Your task to perform on an android device: Open accessibility settings Image 0: 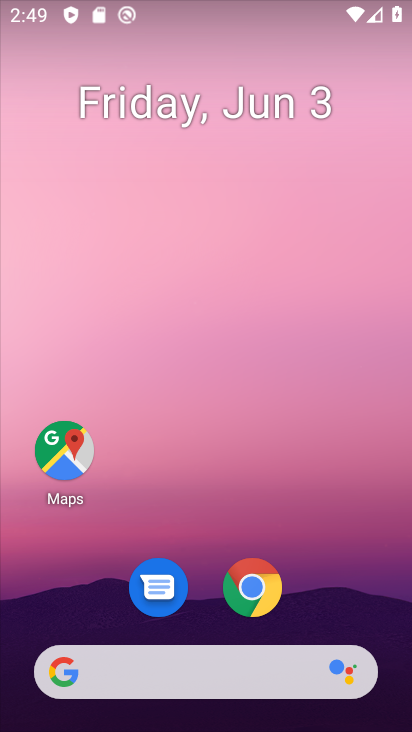
Step 0: drag from (206, 720) to (184, 169)
Your task to perform on an android device: Open accessibility settings Image 1: 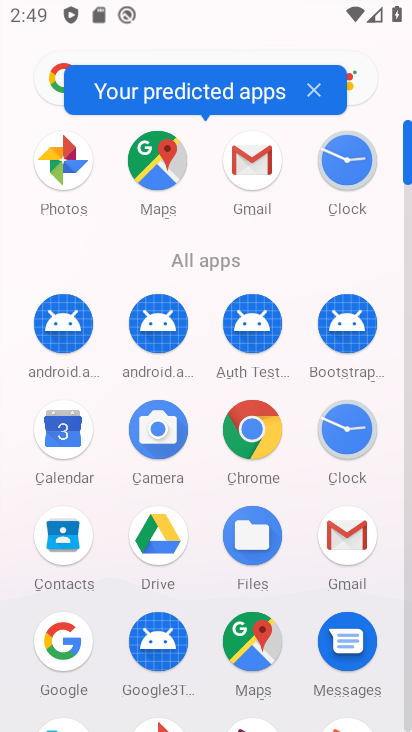
Step 1: drag from (209, 653) to (209, 283)
Your task to perform on an android device: Open accessibility settings Image 2: 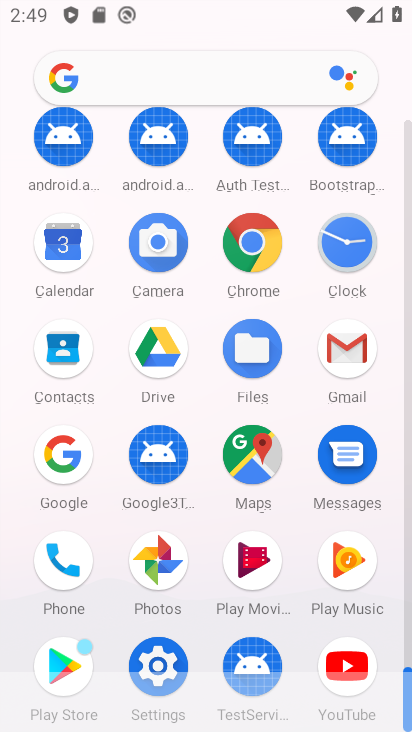
Step 2: click (161, 660)
Your task to perform on an android device: Open accessibility settings Image 3: 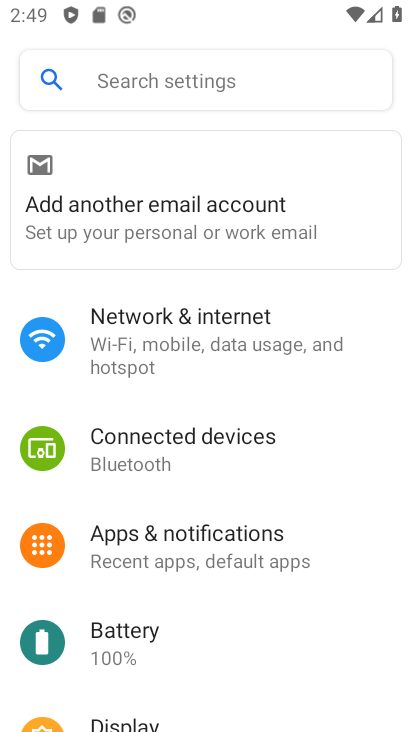
Step 3: drag from (193, 703) to (194, 351)
Your task to perform on an android device: Open accessibility settings Image 4: 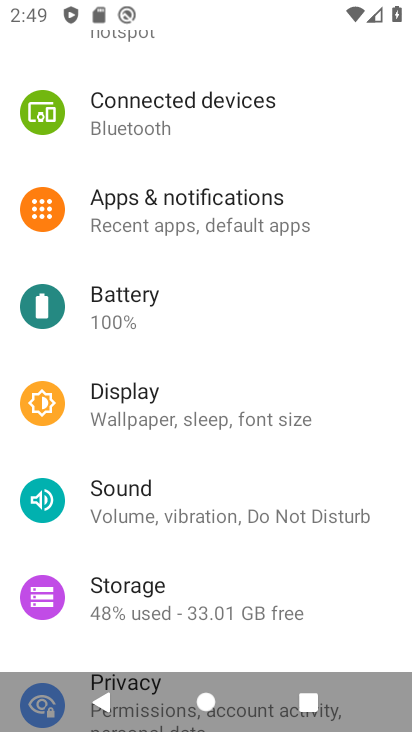
Step 4: drag from (217, 635) to (221, 254)
Your task to perform on an android device: Open accessibility settings Image 5: 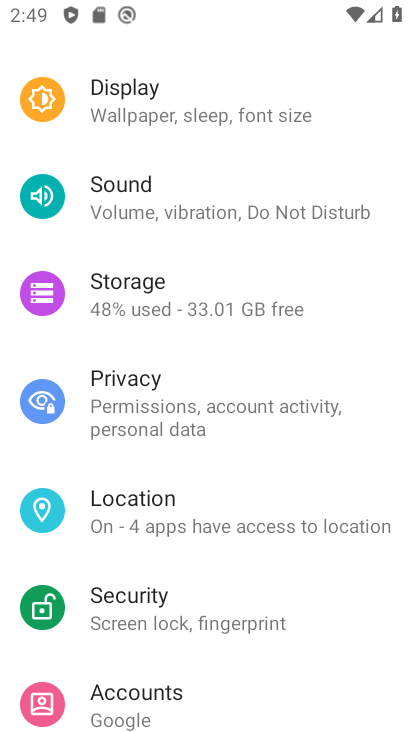
Step 5: drag from (151, 689) to (151, 207)
Your task to perform on an android device: Open accessibility settings Image 6: 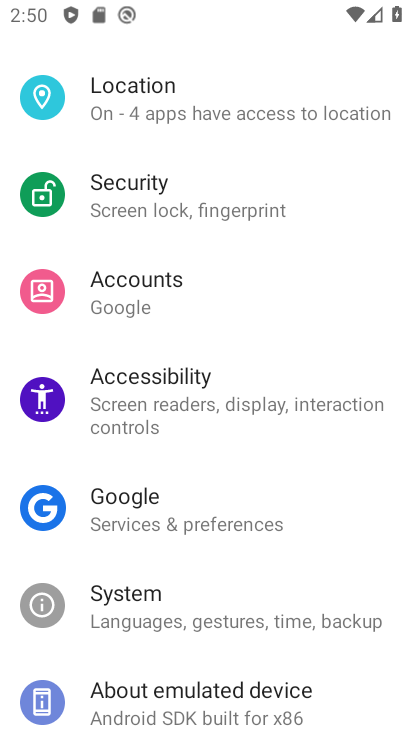
Step 6: click (134, 402)
Your task to perform on an android device: Open accessibility settings Image 7: 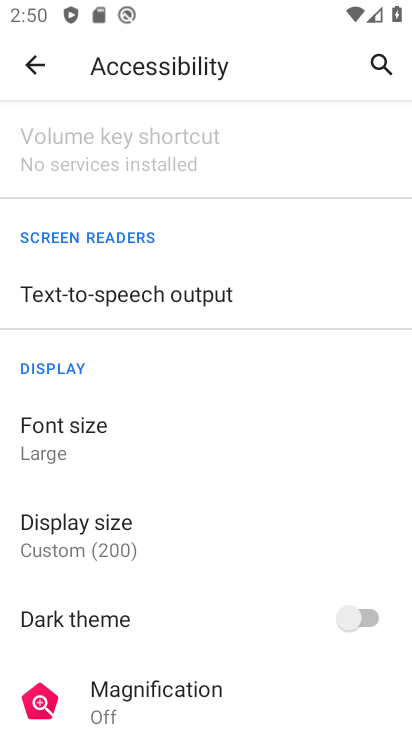
Step 7: task complete